Your task to perform on an android device: toggle show notifications on the lock screen Image 0: 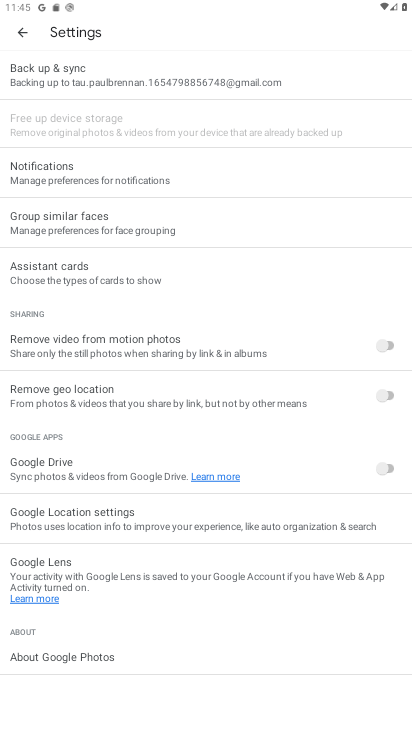
Step 0: press home button
Your task to perform on an android device: toggle show notifications on the lock screen Image 1: 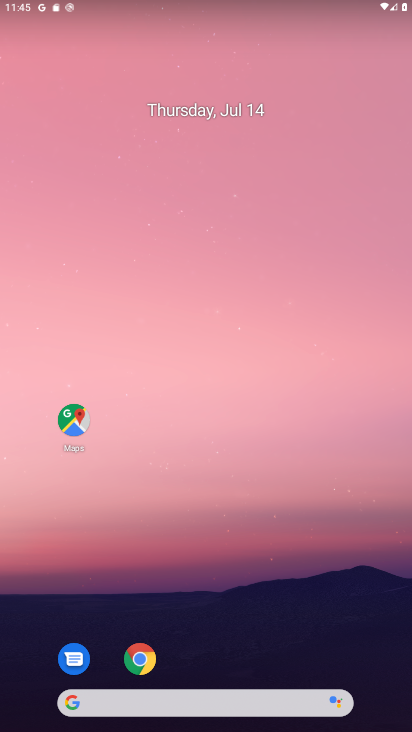
Step 1: drag from (250, 651) to (213, 102)
Your task to perform on an android device: toggle show notifications on the lock screen Image 2: 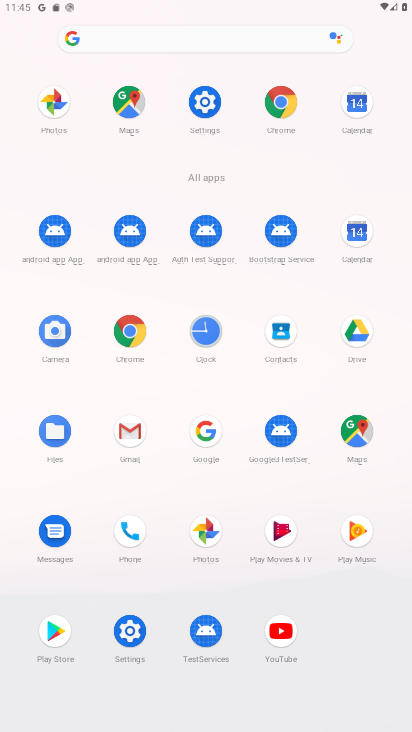
Step 2: click (206, 104)
Your task to perform on an android device: toggle show notifications on the lock screen Image 3: 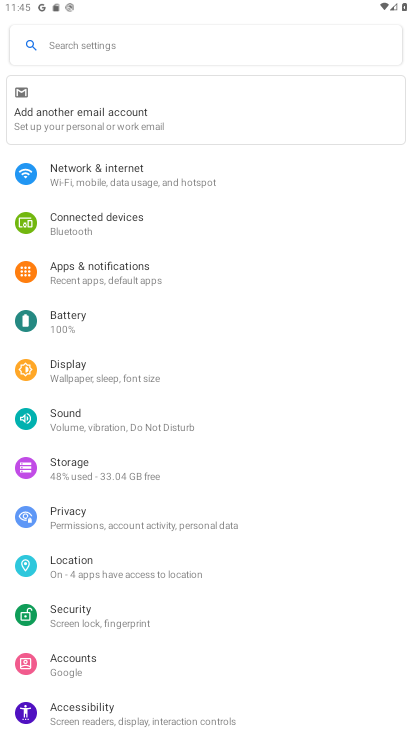
Step 3: click (172, 278)
Your task to perform on an android device: toggle show notifications on the lock screen Image 4: 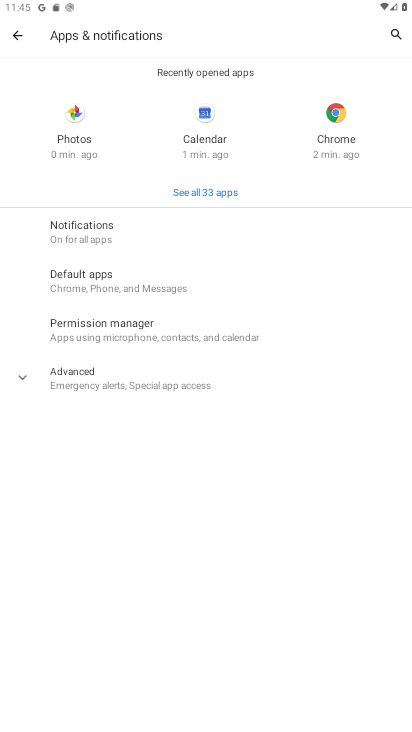
Step 4: click (139, 229)
Your task to perform on an android device: toggle show notifications on the lock screen Image 5: 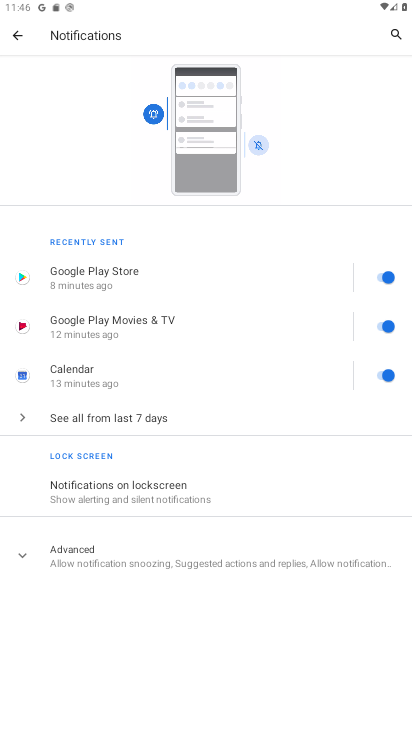
Step 5: click (145, 490)
Your task to perform on an android device: toggle show notifications on the lock screen Image 6: 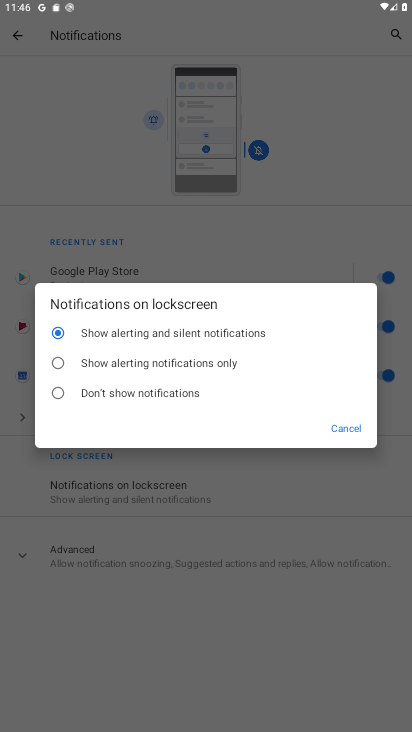
Step 6: click (185, 359)
Your task to perform on an android device: toggle show notifications on the lock screen Image 7: 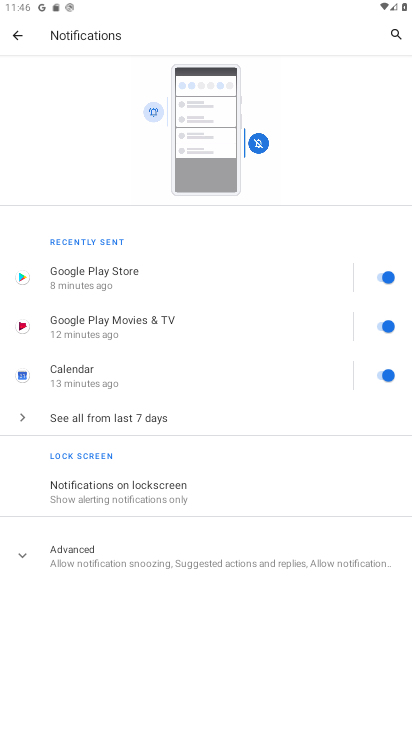
Step 7: task complete